Your task to perform on an android device: Open the Play Movies app and select the watchlist tab. Image 0: 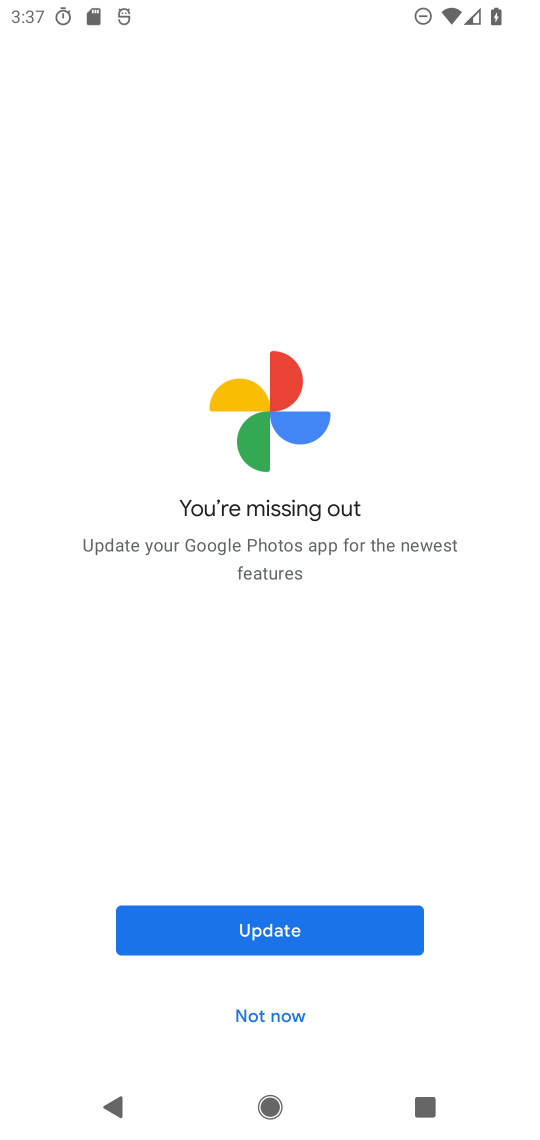
Step 0: press home button
Your task to perform on an android device: Open the Play Movies app and select the watchlist tab. Image 1: 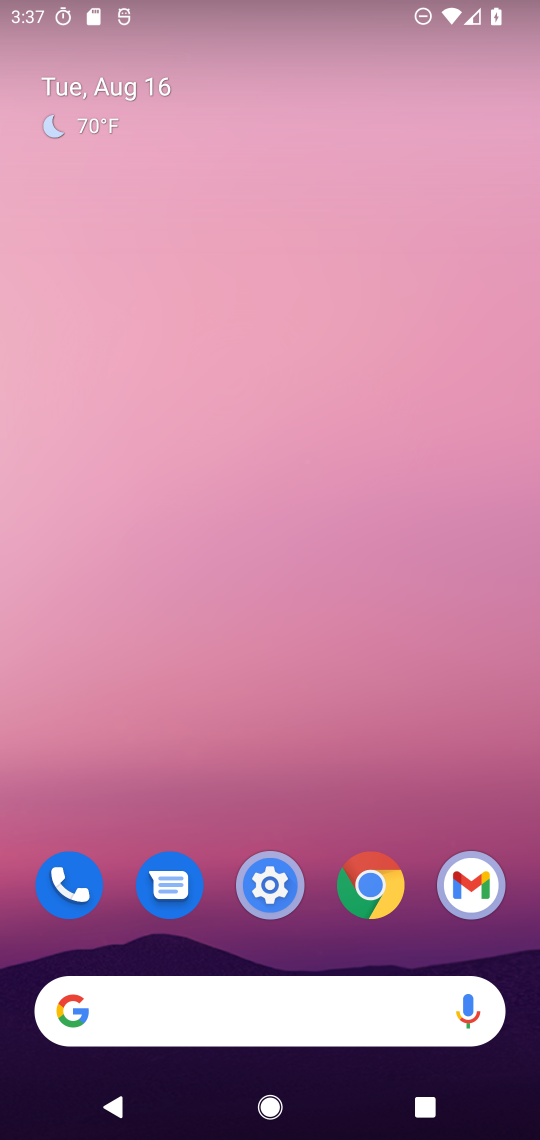
Step 1: drag from (216, 1009) to (339, 266)
Your task to perform on an android device: Open the Play Movies app and select the watchlist tab. Image 2: 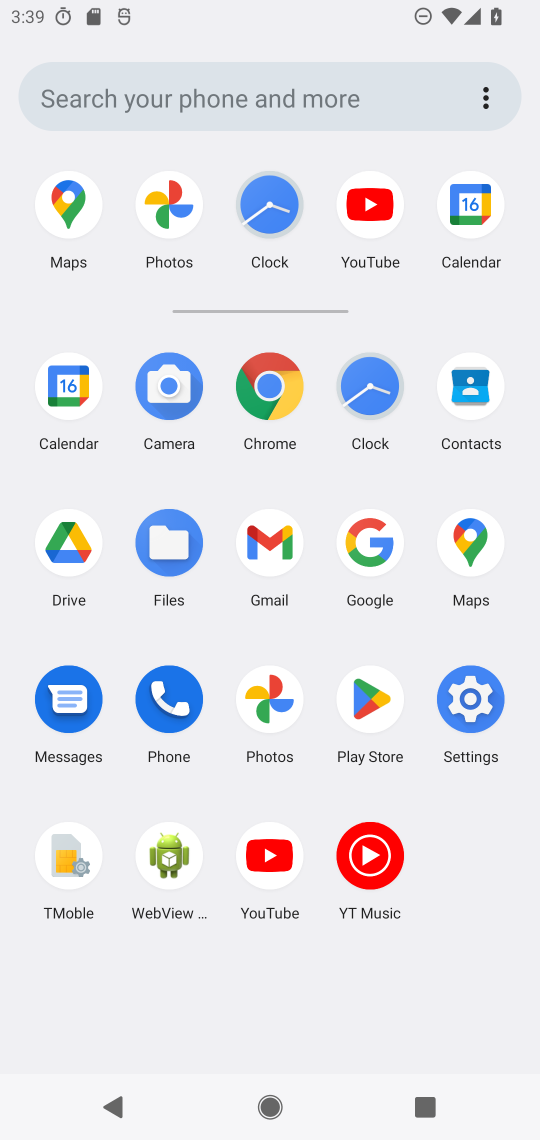
Step 2: click (355, 852)
Your task to perform on an android device: Open the Play Movies app and select the watchlist tab. Image 3: 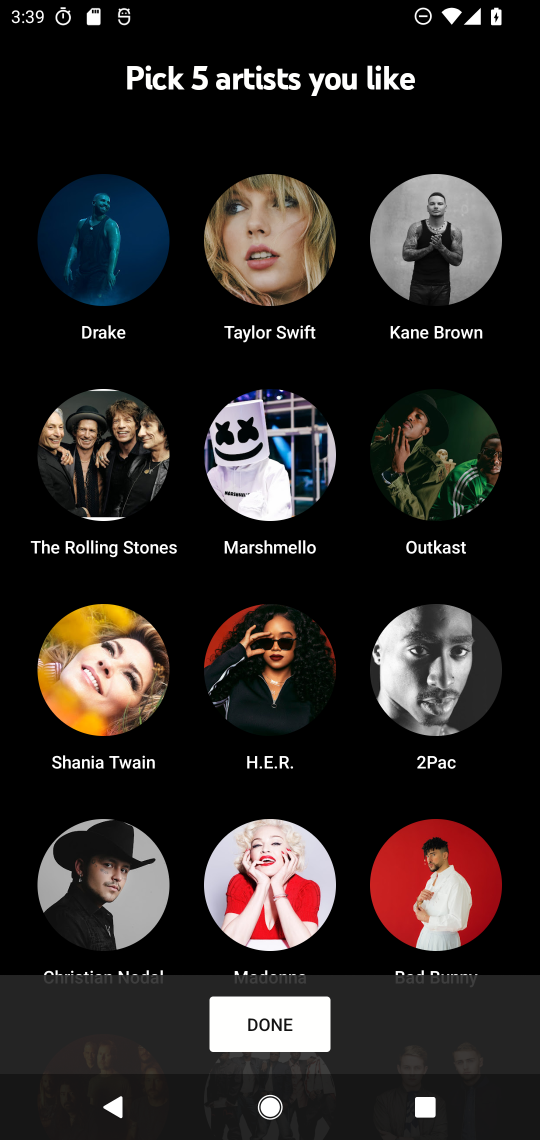
Step 3: task complete